Your task to perform on an android device: turn off notifications in google photos Image 0: 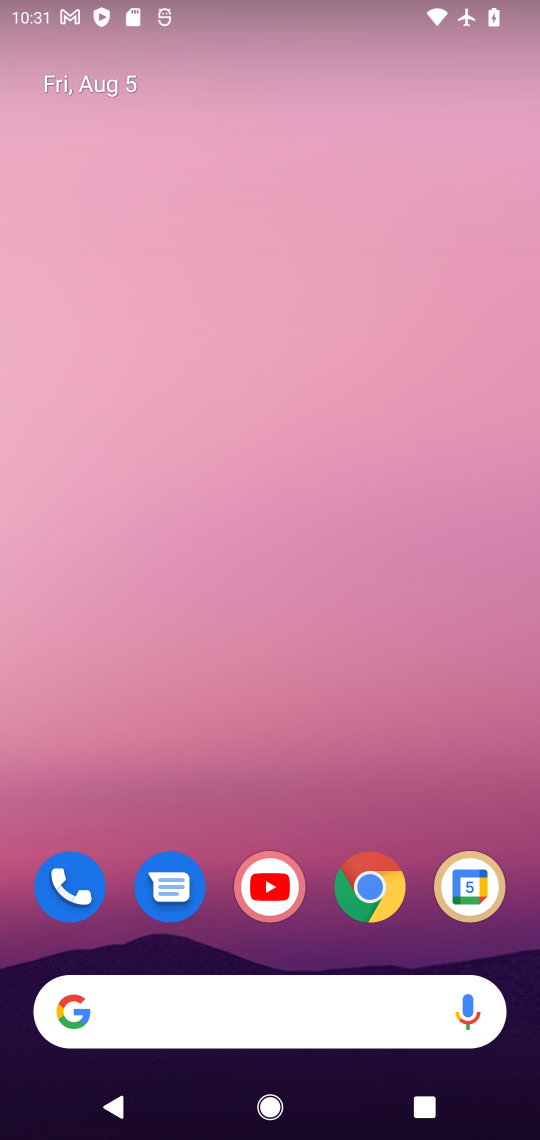
Step 0: press home button
Your task to perform on an android device: turn off notifications in google photos Image 1: 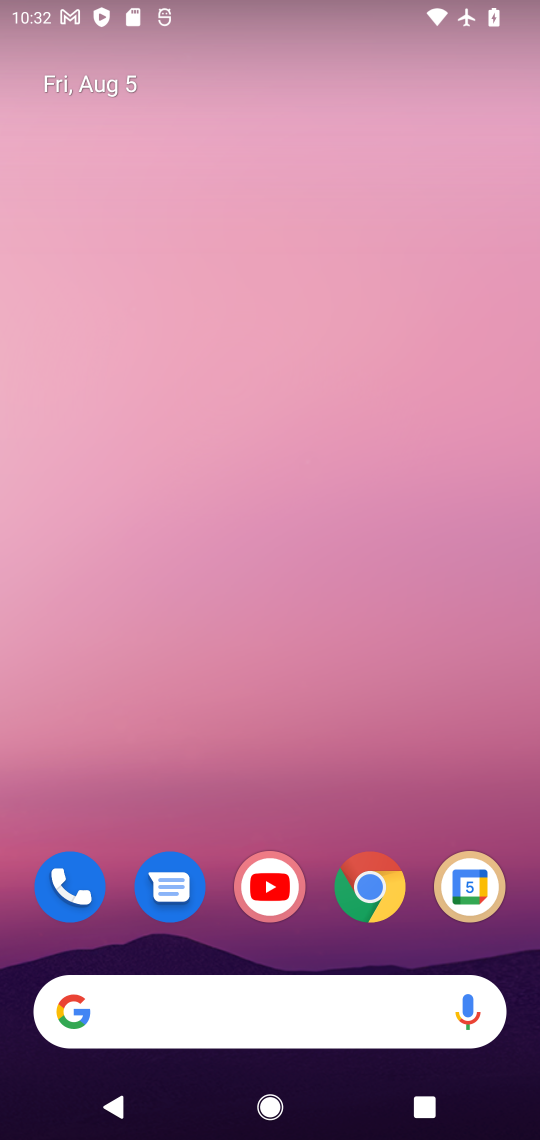
Step 1: drag from (322, 939) to (303, 197)
Your task to perform on an android device: turn off notifications in google photos Image 2: 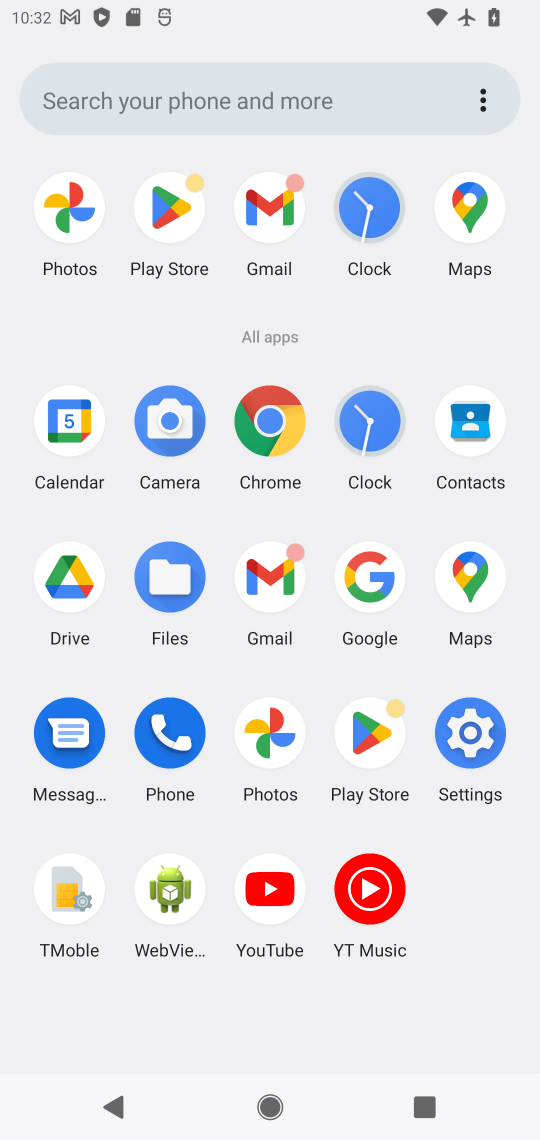
Step 2: click (76, 205)
Your task to perform on an android device: turn off notifications in google photos Image 3: 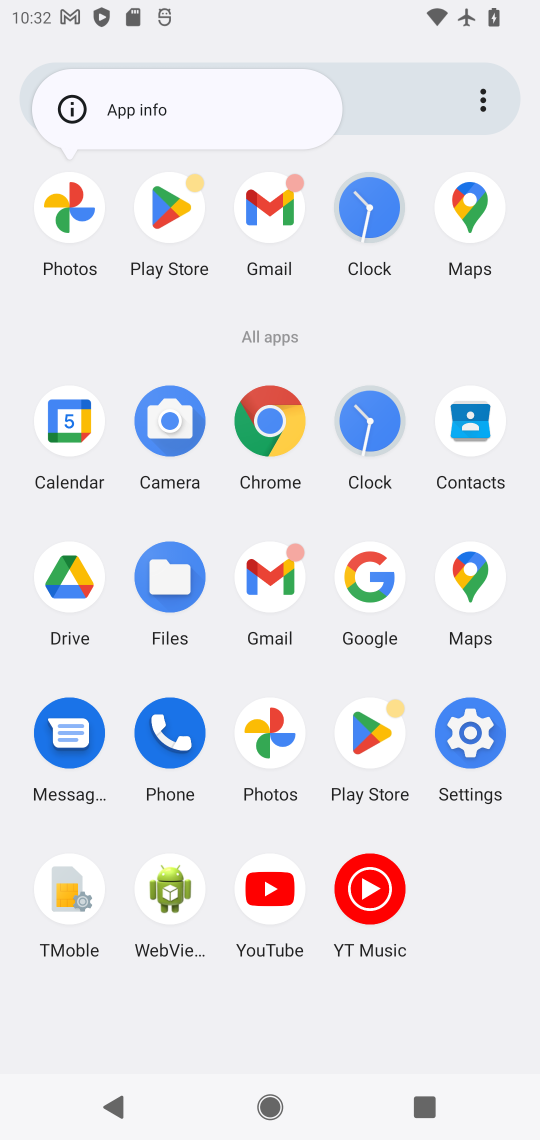
Step 3: click (84, 209)
Your task to perform on an android device: turn off notifications in google photos Image 4: 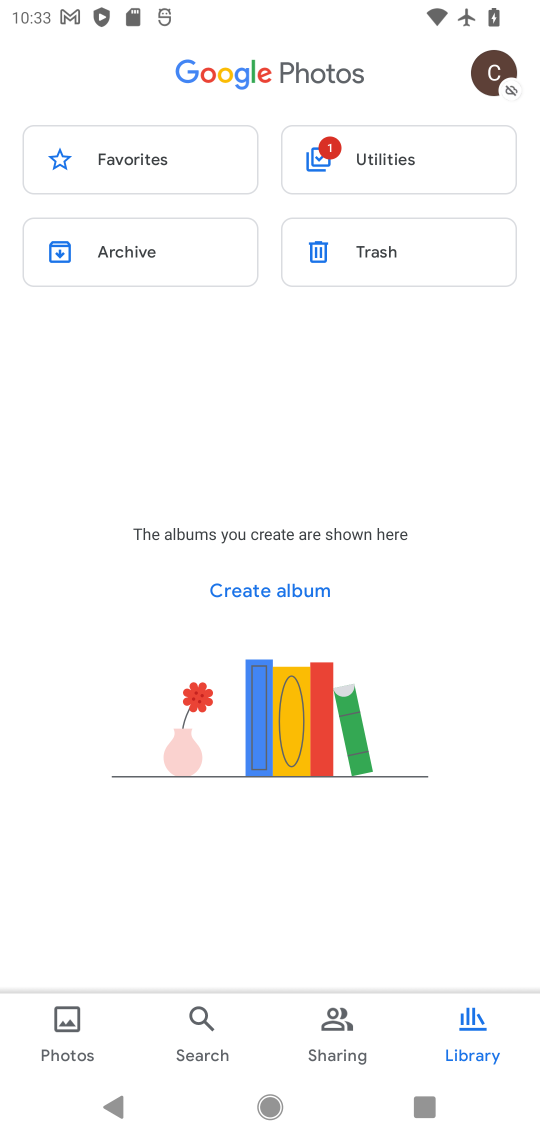
Step 4: click (505, 74)
Your task to perform on an android device: turn off notifications in google photos Image 5: 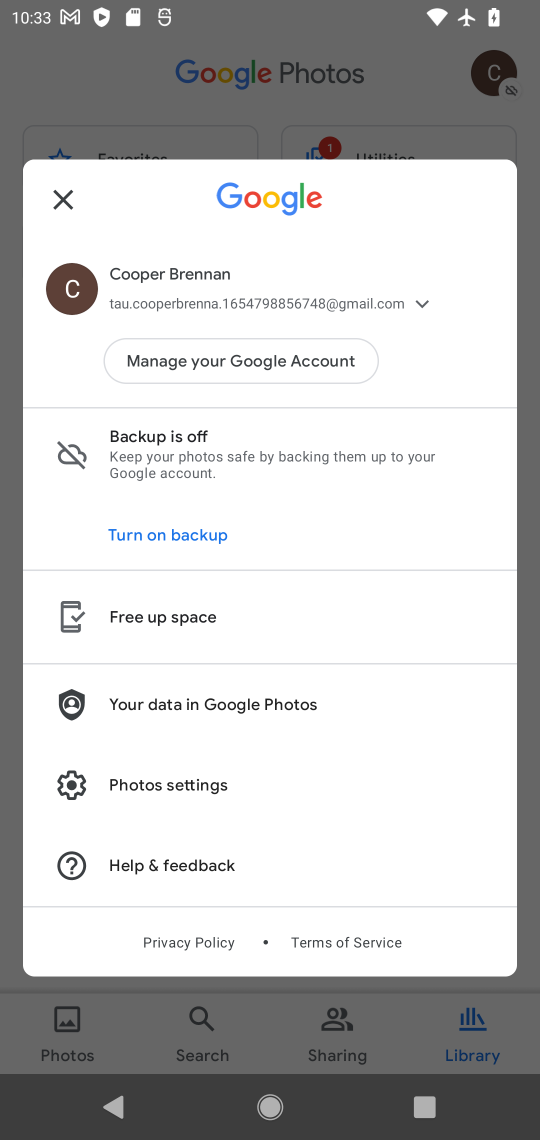
Step 5: click (189, 786)
Your task to perform on an android device: turn off notifications in google photos Image 6: 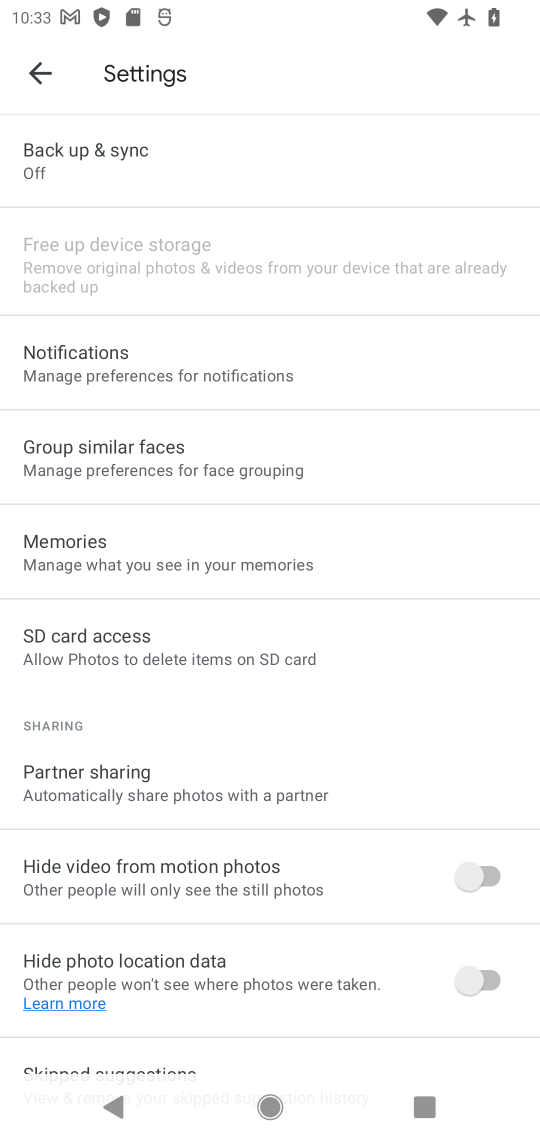
Step 6: click (97, 378)
Your task to perform on an android device: turn off notifications in google photos Image 7: 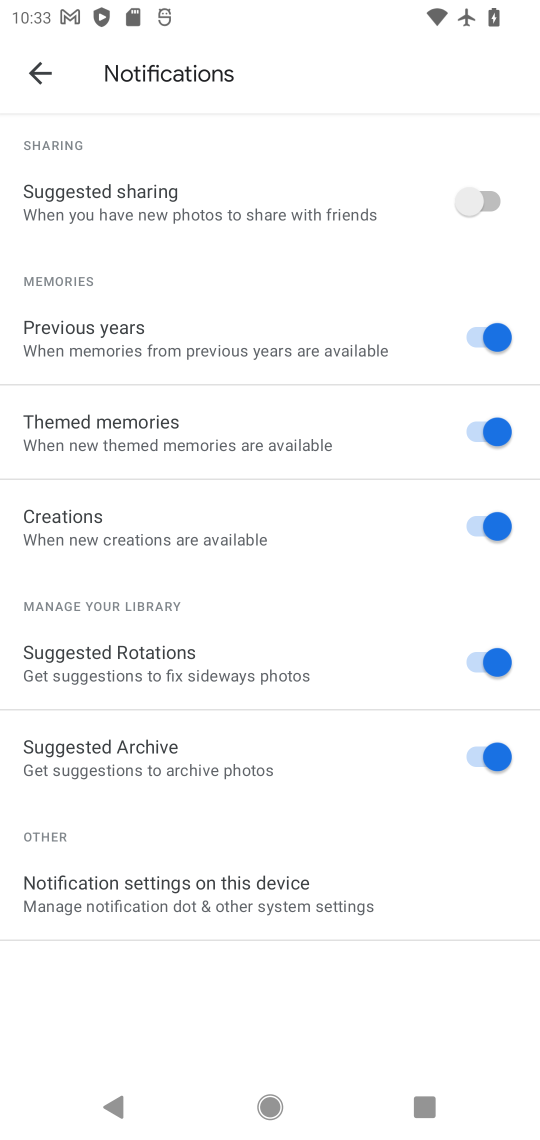
Step 7: task complete